Your task to perform on an android device: Show me productivity apps on the Play Store Image 0: 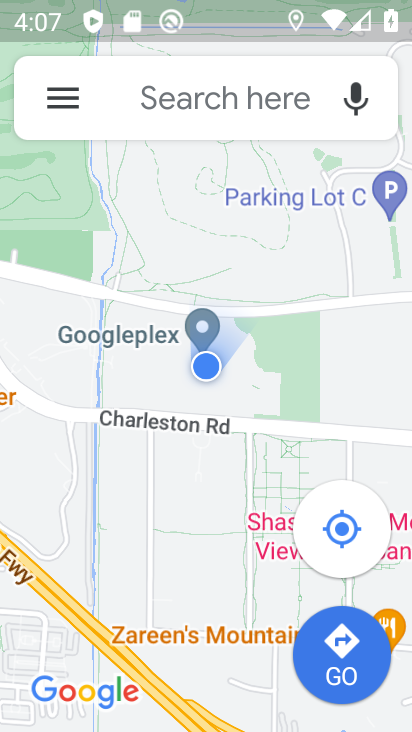
Step 0: press home button
Your task to perform on an android device: Show me productivity apps on the Play Store Image 1: 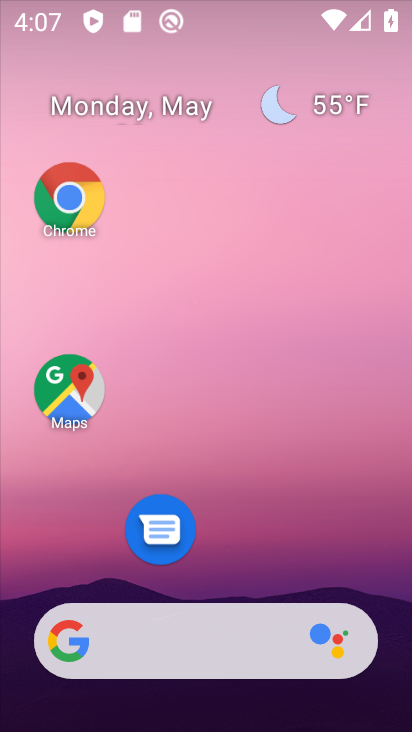
Step 1: drag from (183, 638) to (129, 229)
Your task to perform on an android device: Show me productivity apps on the Play Store Image 2: 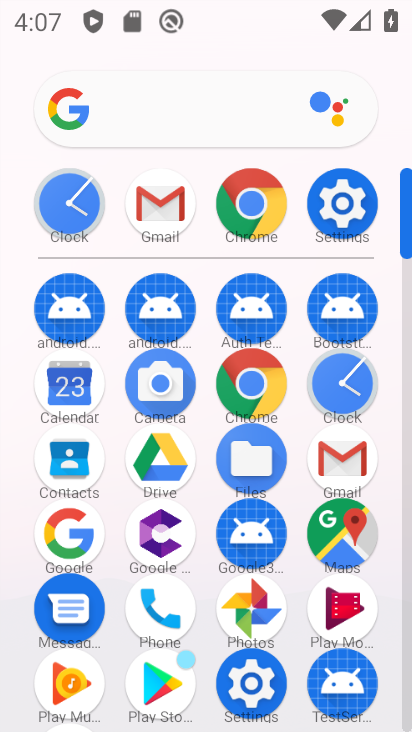
Step 2: click (175, 695)
Your task to perform on an android device: Show me productivity apps on the Play Store Image 3: 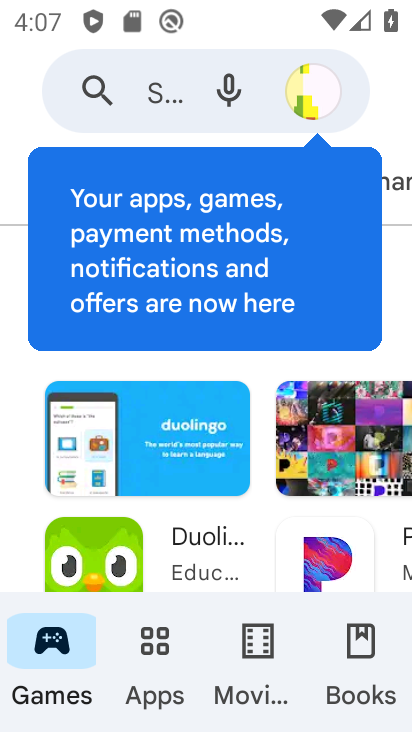
Step 3: click (180, 95)
Your task to perform on an android device: Show me productivity apps on the Play Store Image 4: 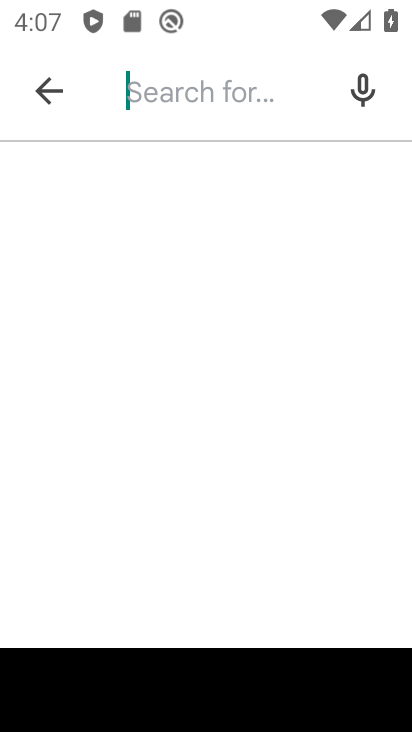
Step 4: type "productivity aaps"
Your task to perform on an android device: Show me productivity apps on the Play Store Image 5: 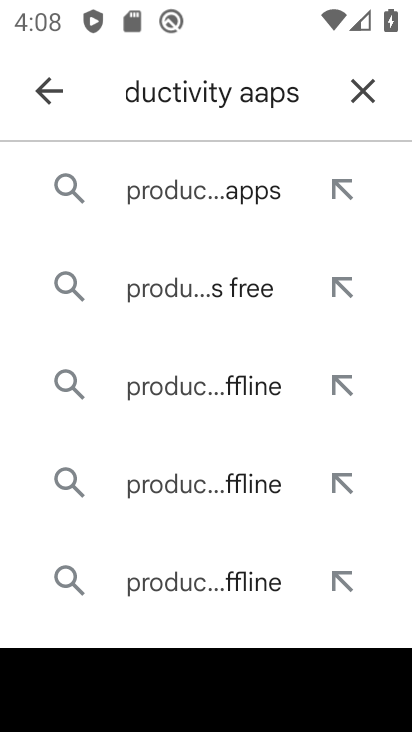
Step 5: click (266, 197)
Your task to perform on an android device: Show me productivity apps on the Play Store Image 6: 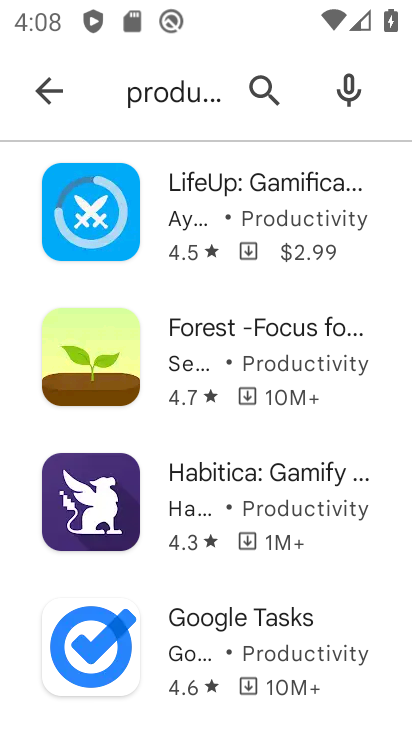
Step 6: task complete